Your task to perform on an android device: View the shopping cart on costco. Search for "usb-c" on costco, select the first entry, add it to the cart, then select checkout. Image 0: 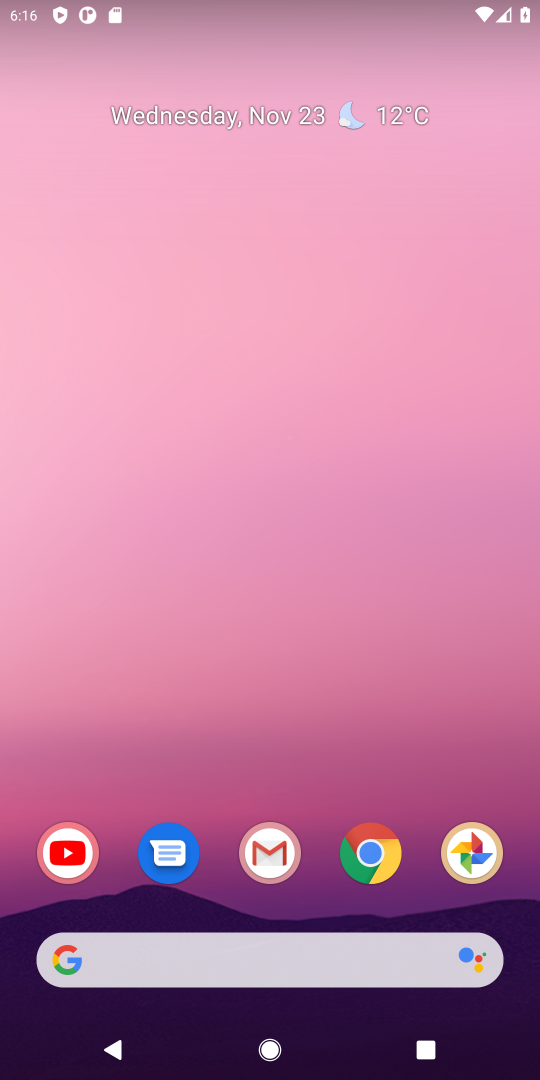
Step 0: click (377, 852)
Your task to perform on an android device: View the shopping cart on costco. Search for "usb-c" on costco, select the first entry, add it to the cart, then select checkout. Image 1: 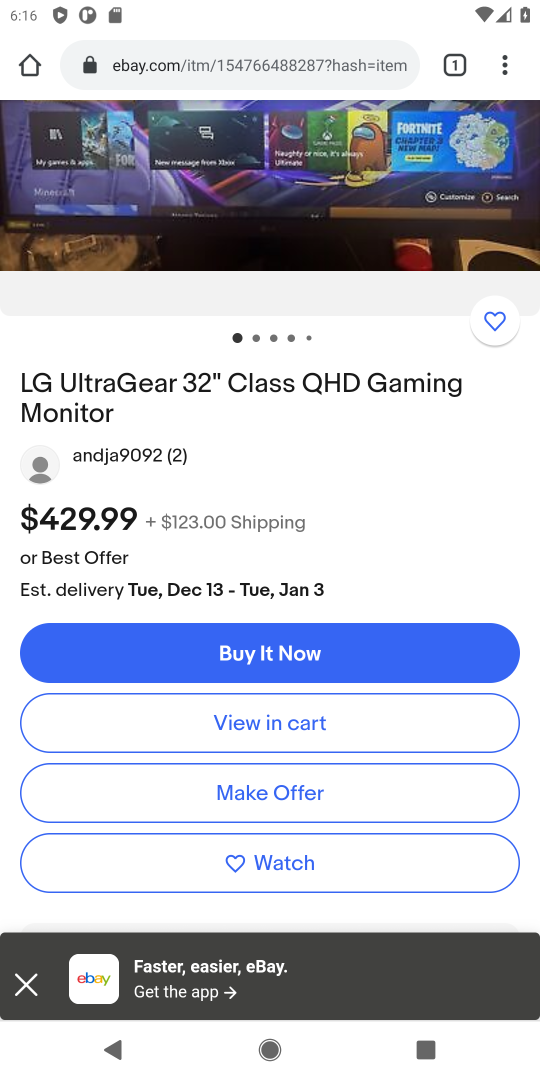
Step 1: click (238, 63)
Your task to perform on an android device: View the shopping cart on costco. Search for "usb-c" on costco, select the first entry, add it to the cart, then select checkout. Image 2: 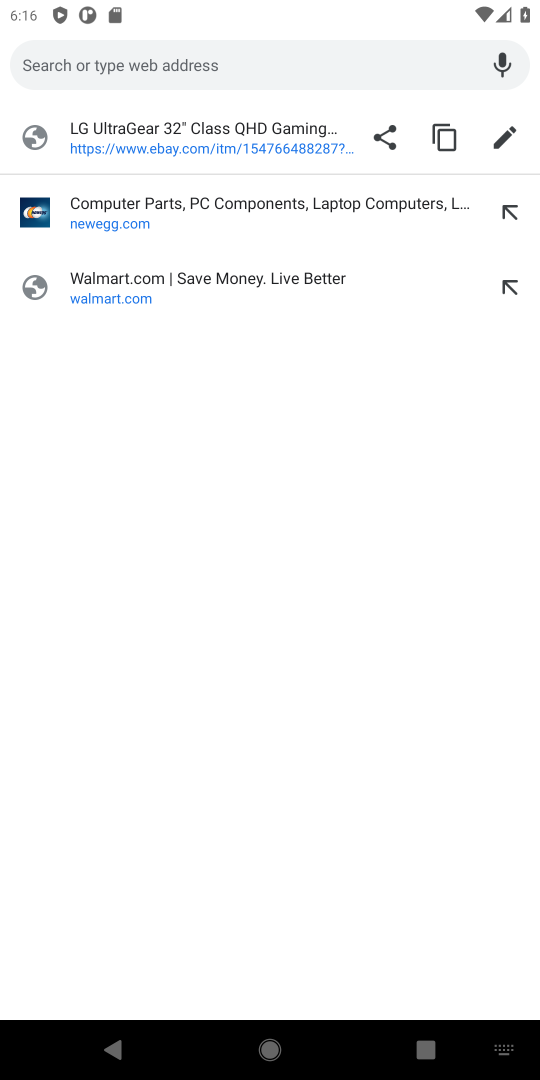
Step 2: type "costco.com"
Your task to perform on an android device: View the shopping cart on costco. Search for "usb-c" on costco, select the first entry, add it to the cart, then select checkout. Image 3: 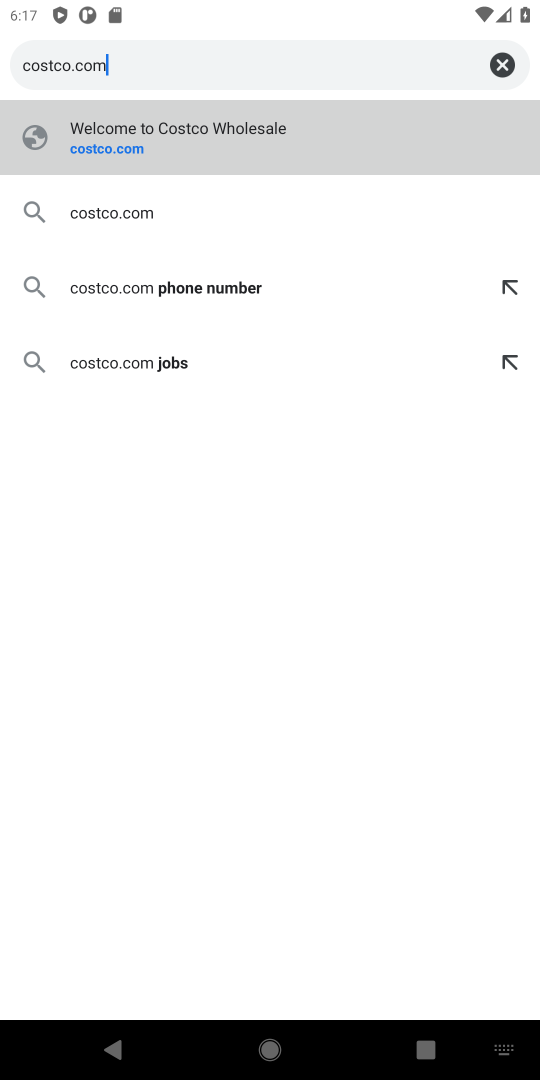
Step 3: click (117, 160)
Your task to perform on an android device: View the shopping cart on costco. Search for "usb-c" on costco, select the first entry, add it to the cart, then select checkout. Image 4: 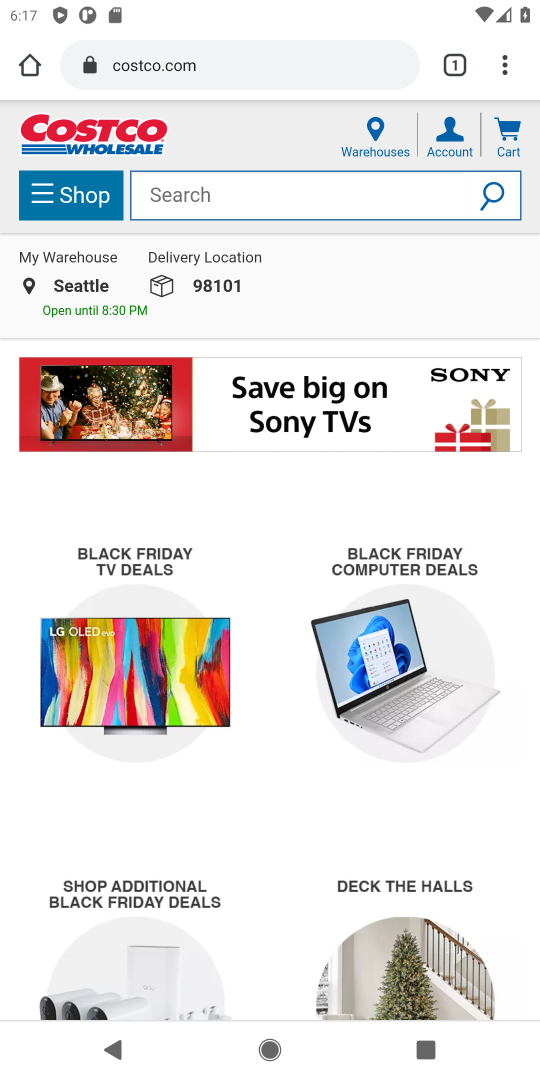
Step 4: click (507, 144)
Your task to perform on an android device: View the shopping cart on costco. Search for "usb-c" on costco, select the first entry, add it to the cart, then select checkout. Image 5: 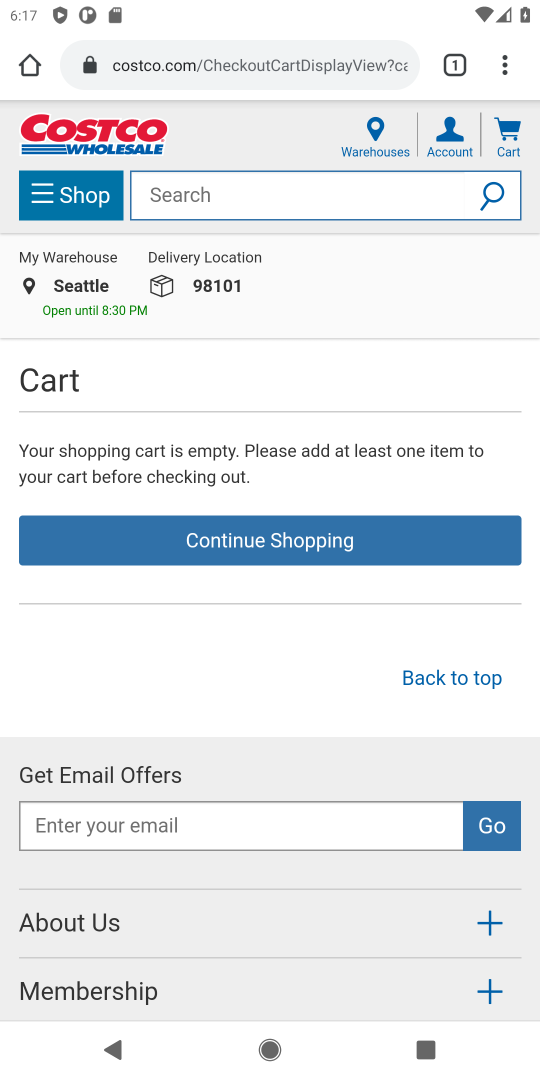
Step 5: click (200, 200)
Your task to perform on an android device: View the shopping cart on costco. Search for "usb-c" on costco, select the first entry, add it to the cart, then select checkout. Image 6: 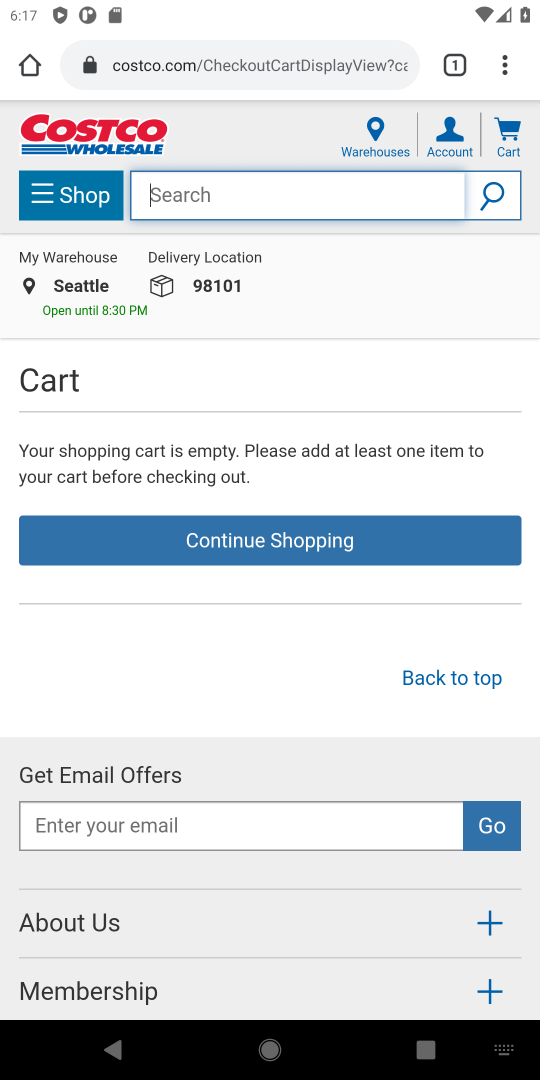
Step 6: type "usb-c"
Your task to perform on an android device: View the shopping cart on costco. Search for "usb-c" on costco, select the first entry, add it to the cart, then select checkout. Image 7: 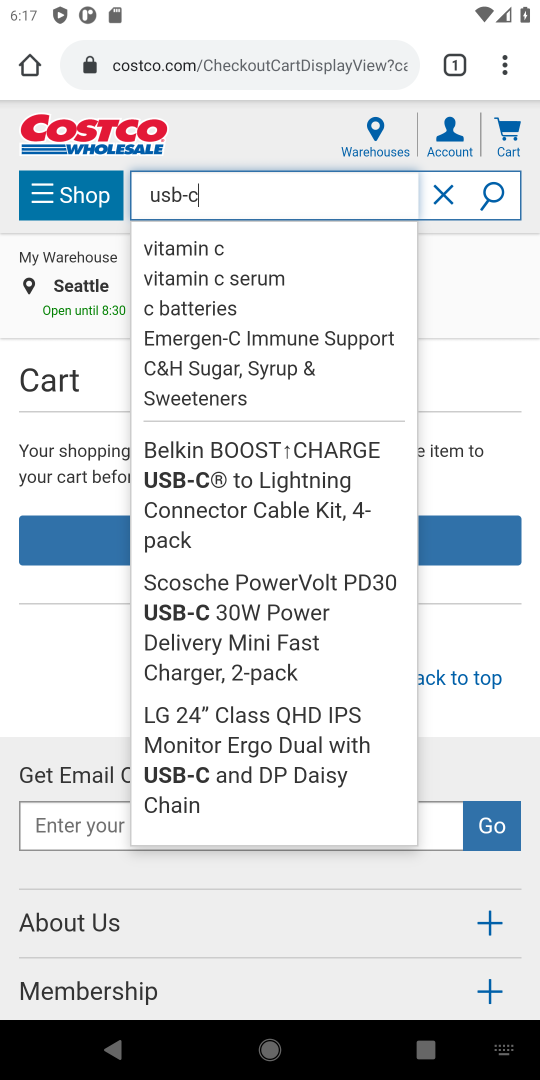
Step 7: click (489, 187)
Your task to perform on an android device: View the shopping cart on costco. Search for "usb-c" on costco, select the first entry, add it to the cart, then select checkout. Image 8: 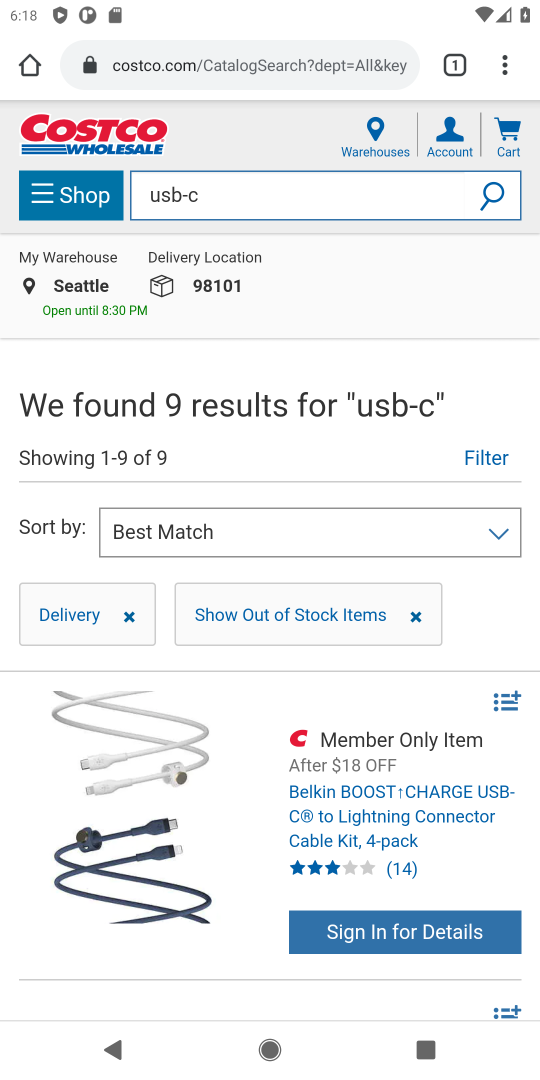
Step 8: drag from (178, 778) to (162, 467)
Your task to perform on an android device: View the shopping cart on costco. Search for "usb-c" on costco, select the first entry, add it to the cart, then select checkout. Image 9: 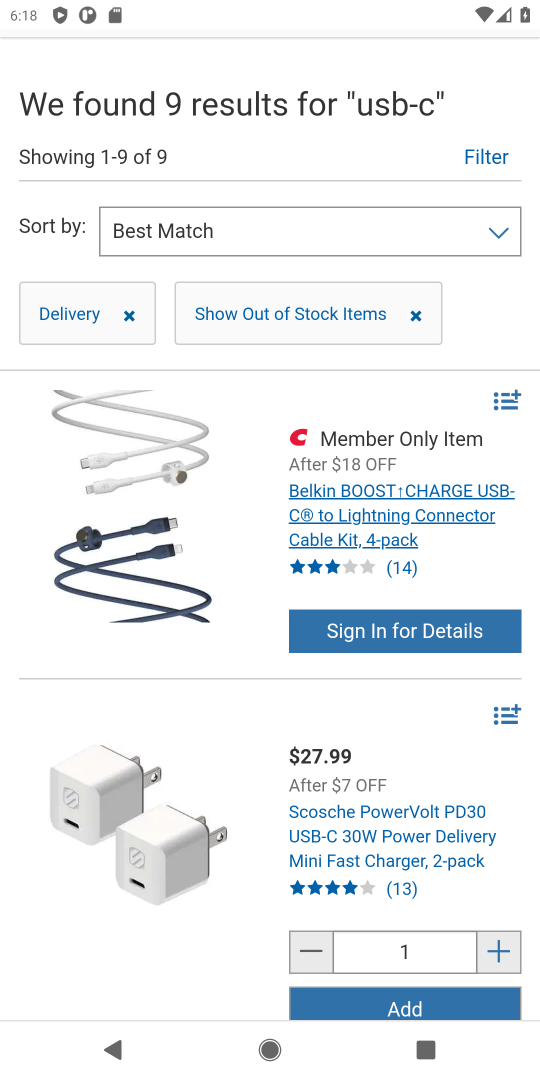
Step 9: click (138, 580)
Your task to perform on an android device: View the shopping cart on costco. Search for "usb-c" on costco, select the first entry, add it to the cart, then select checkout. Image 10: 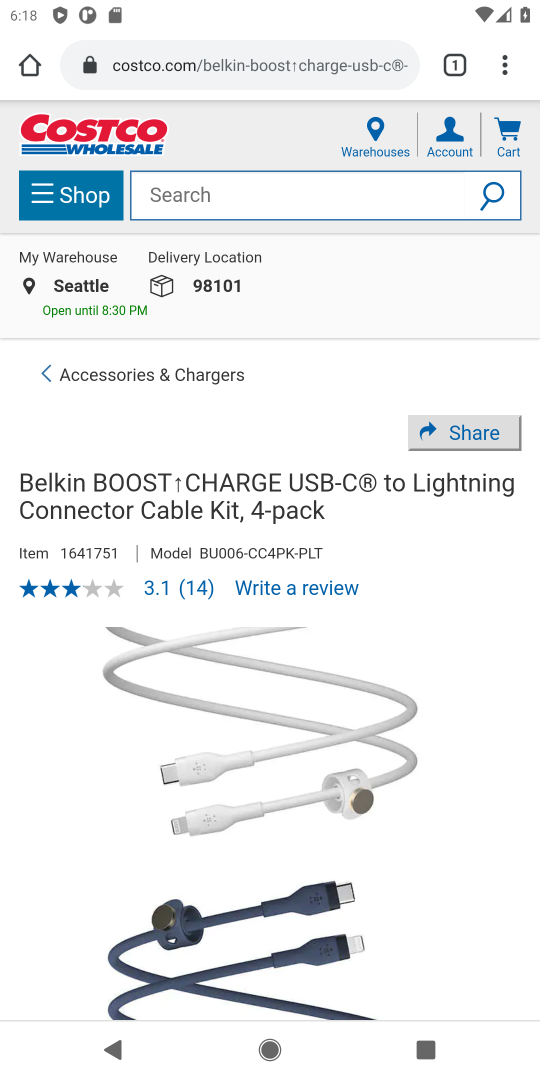
Step 10: drag from (168, 705) to (209, 357)
Your task to perform on an android device: View the shopping cart on costco. Search for "usb-c" on costco, select the first entry, add it to the cart, then select checkout. Image 11: 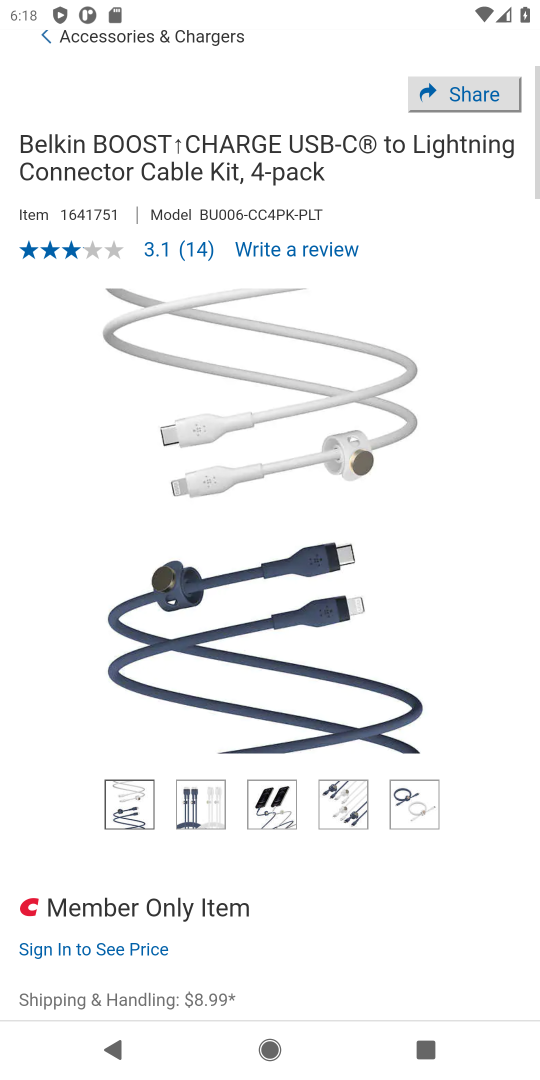
Step 11: drag from (286, 660) to (301, 338)
Your task to perform on an android device: View the shopping cart on costco. Search for "usb-c" on costco, select the first entry, add it to the cart, then select checkout. Image 12: 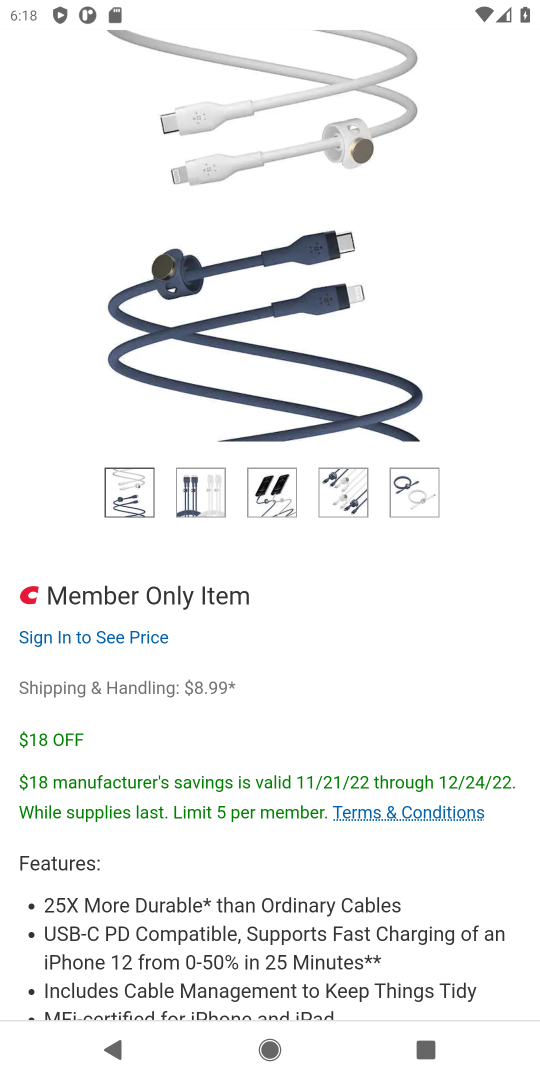
Step 12: drag from (289, 595) to (310, 369)
Your task to perform on an android device: View the shopping cart on costco. Search for "usb-c" on costco, select the first entry, add it to the cart, then select checkout. Image 13: 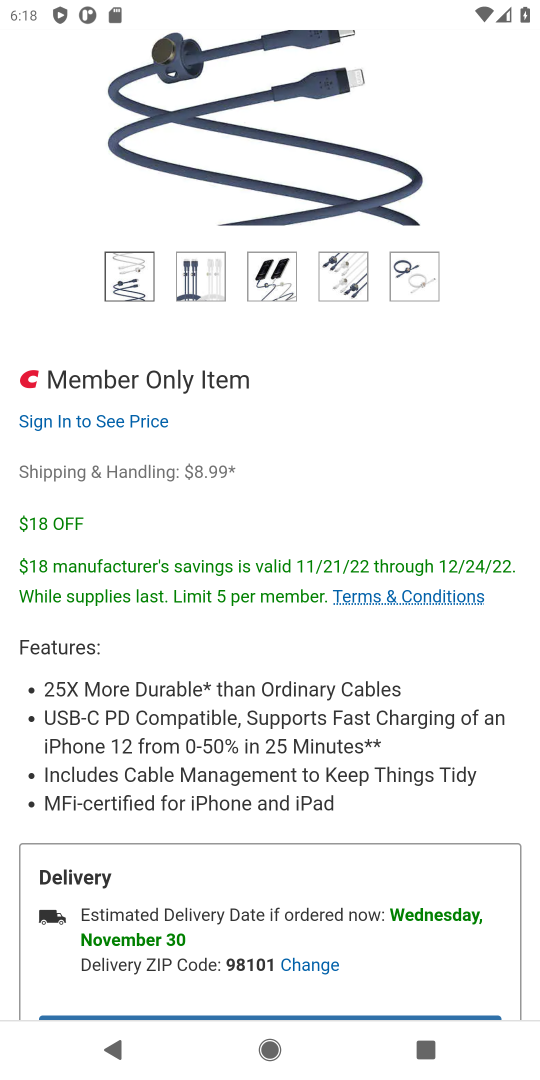
Step 13: drag from (284, 663) to (282, 335)
Your task to perform on an android device: View the shopping cart on costco. Search for "usb-c" on costco, select the first entry, add it to the cart, then select checkout. Image 14: 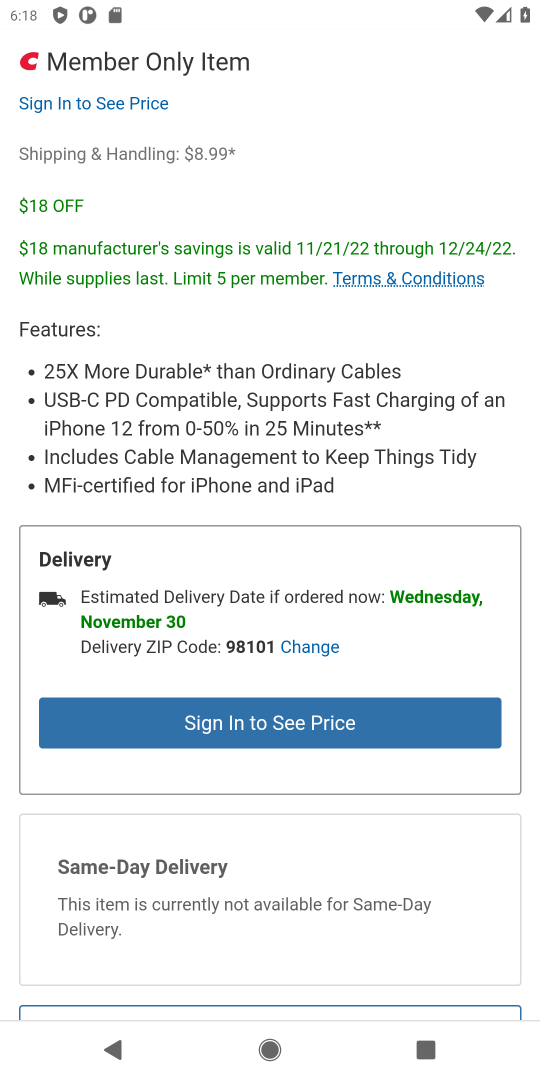
Step 14: drag from (278, 819) to (290, 405)
Your task to perform on an android device: View the shopping cart on costco. Search for "usb-c" on costco, select the first entry, add it to the cart, then select checkout. Image 15: 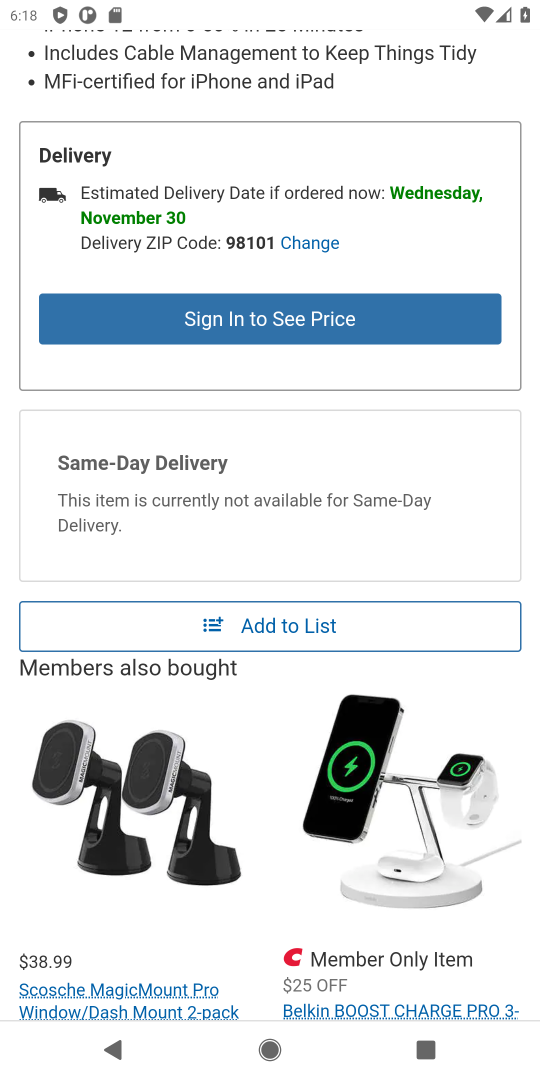
Step 15: click (286, 630)
Your task to perform on an android device: View the shopping cart on costco. Search for "usb-c" on costco, select the first entry, add it to the cart, then select checkout. Image 16: 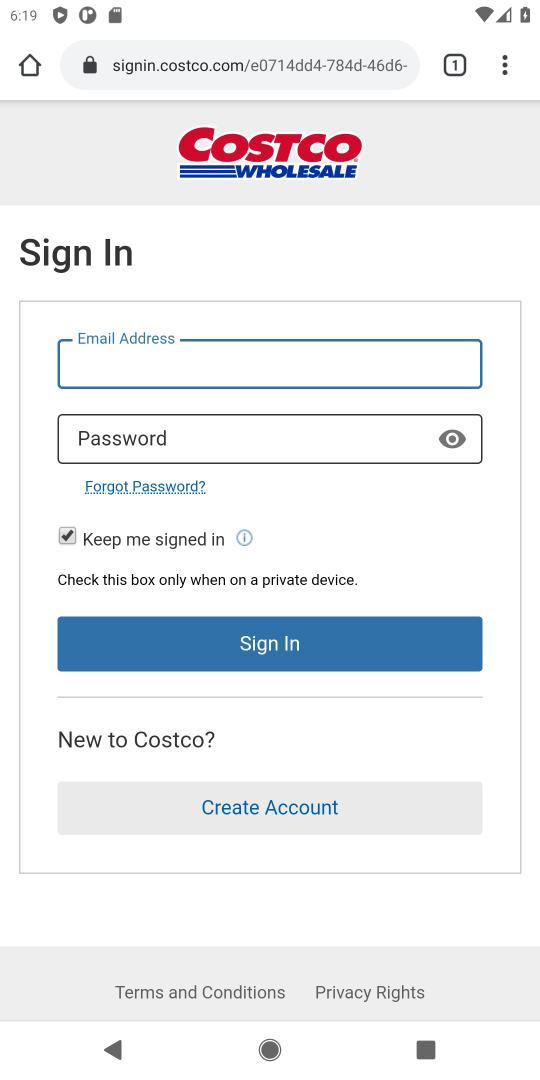
Step 16: task complete